Your task to perform on an android device: check storage Image 0: 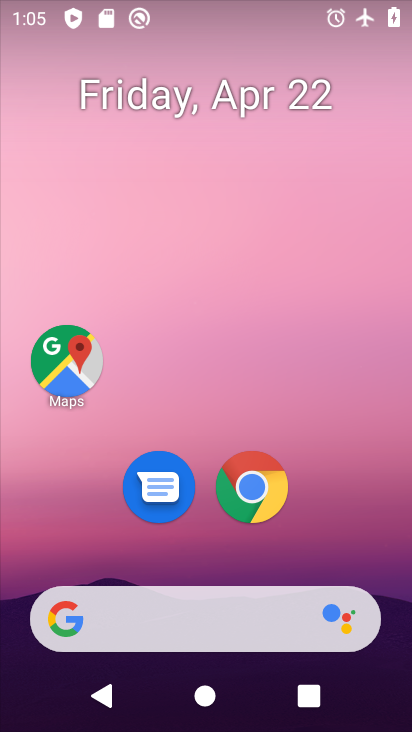
Step 0: drag from (203, 556) to (203, 183)
Your task to perform on an android device: check storage Image 1: 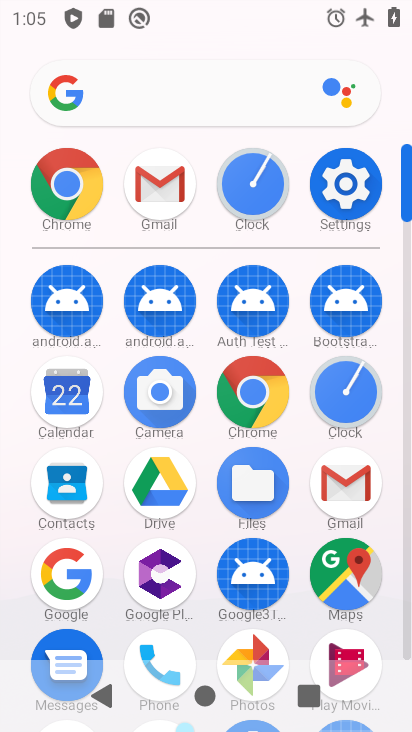
Step 1: click (337, 196)
Your task to perform on an android device: check storage Image 2: 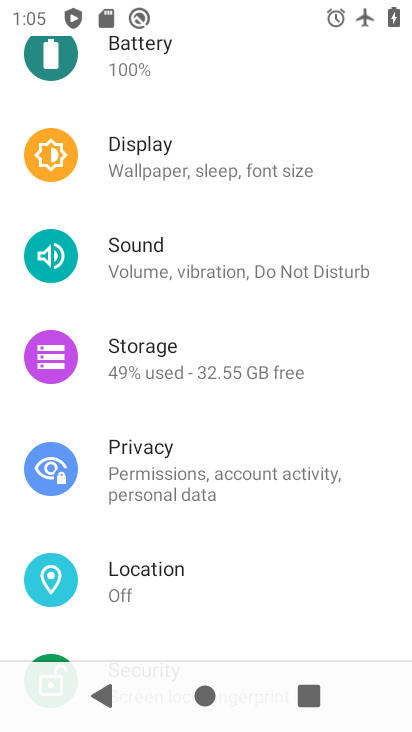
Step 2: drag from (212, 531) to (224, 222)
Your task to perform on an android device: check storage Image 3: 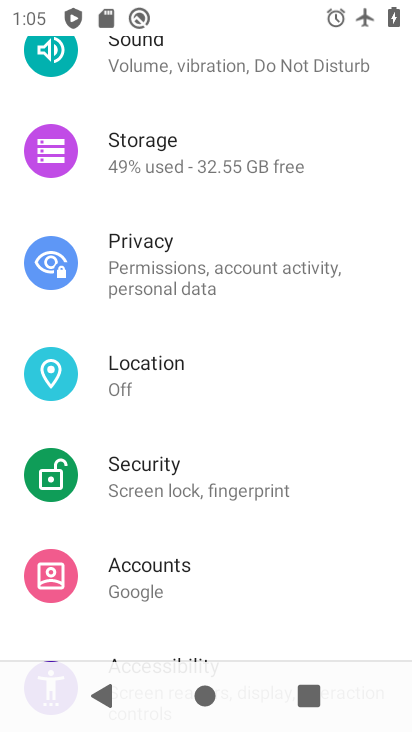
Step 3: drag from (202, 529) to (234, 285)
Your task to perform on an android device: check storage Image 4: 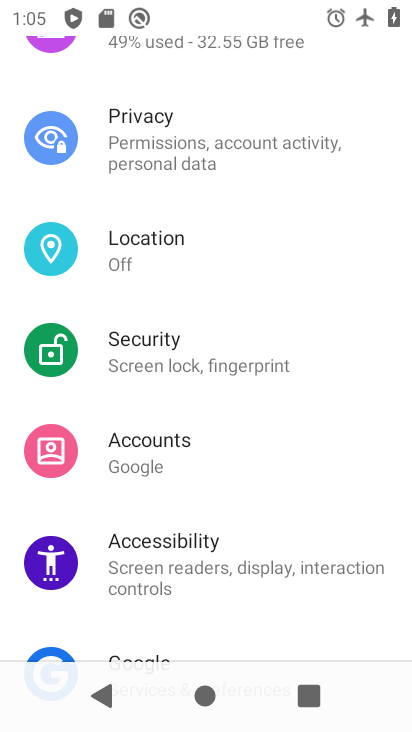
Step 4: drag from (236, 475) to (291, 176)
Your task to perform on an android device: check storage Image 5: 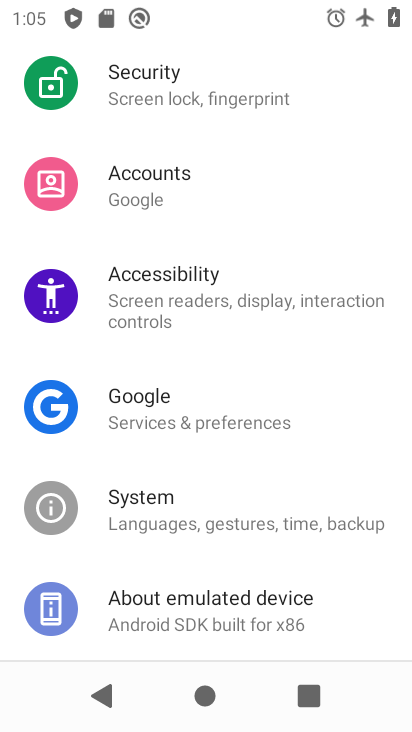
Step 5: click (195, 492)
Your task to perform on an android device: check storage Image 6: 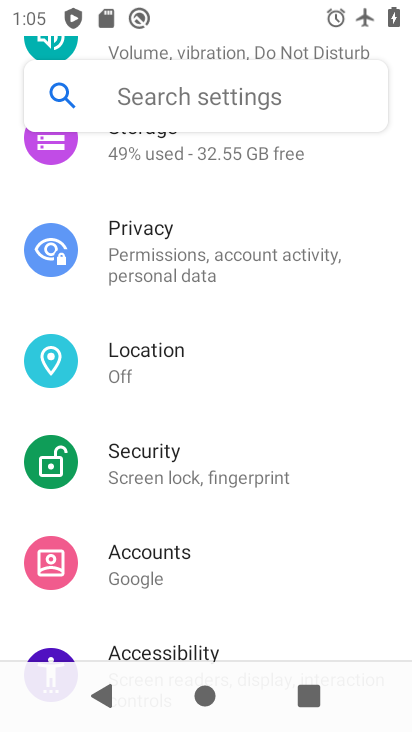
Step 6: drag from (222, 217) to (238, 469)
Your task to perform on an android device: check storage Image 7: 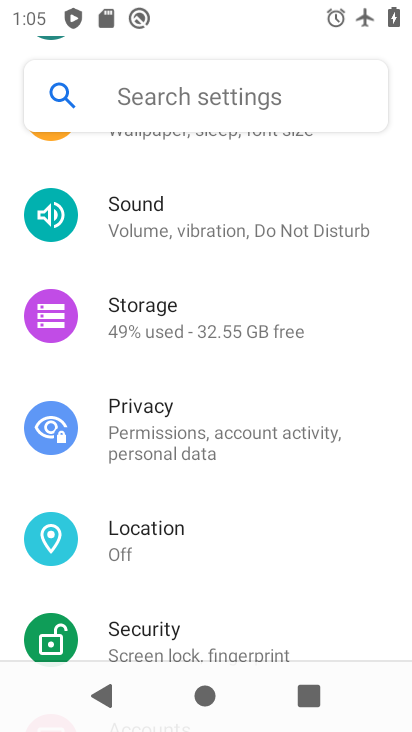
Step 7: click (217, 318)
Your task to perform on an android device: check storage Image 8: 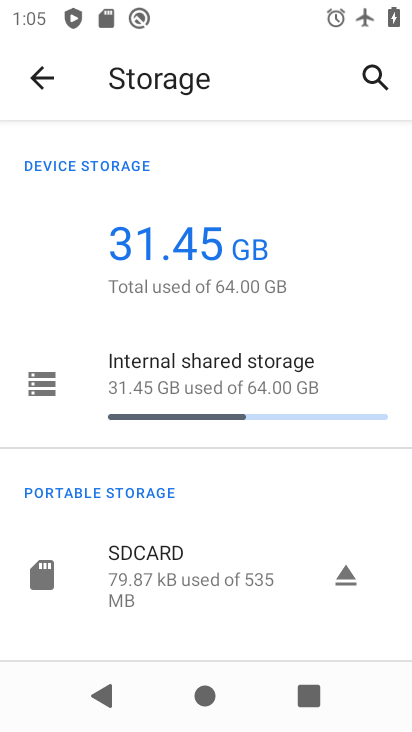
Step 8: task complete